Your task to perform on an android device: turn off priority inbox in the gmail app Image 0: 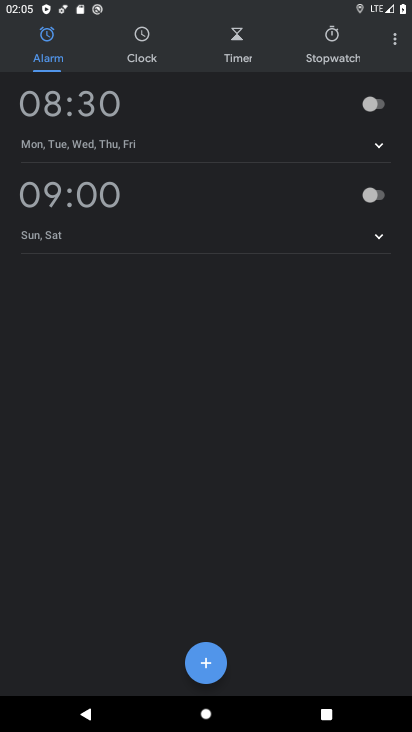
Step 0: press home button
Your task to perform on an android device: turn off priority inbox in the gmail app Image 1: 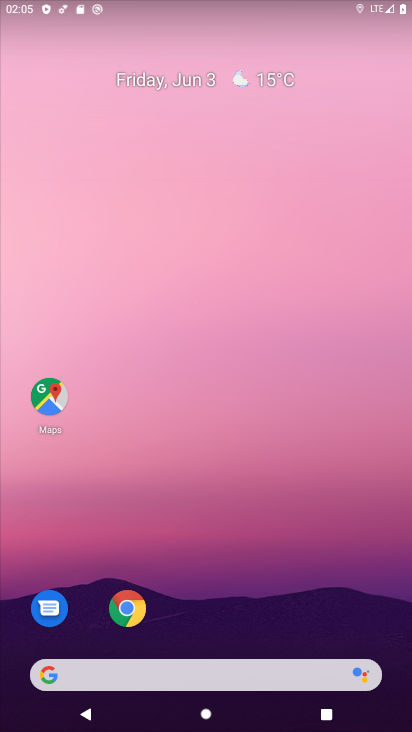
Step 1: drag from (301, 572) to (203, 51)
Your task to perform on an android device: turn off priority inbox in the gmail app Image 2: 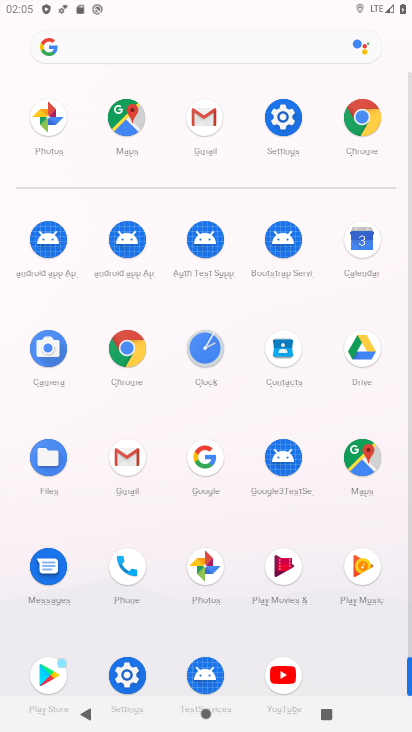
Step 2: click (204, 117)
Your task to perform on an android device: turn off priority inbox in the gmail app Image 3: 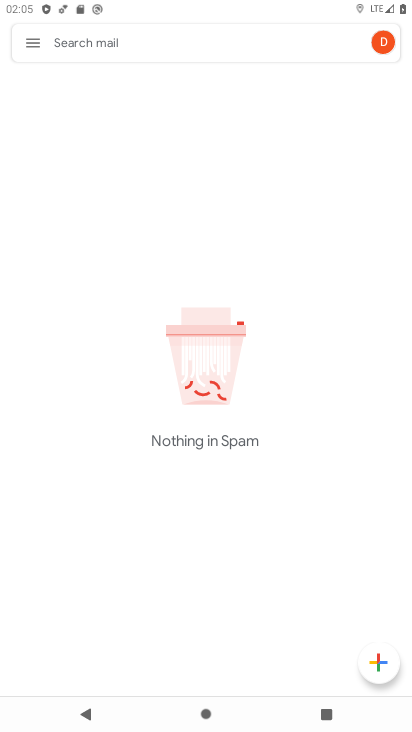
Step 3: click (28, 45)
Your task to perform on an android device: turn off priority inbox in the gmail app Image 4: 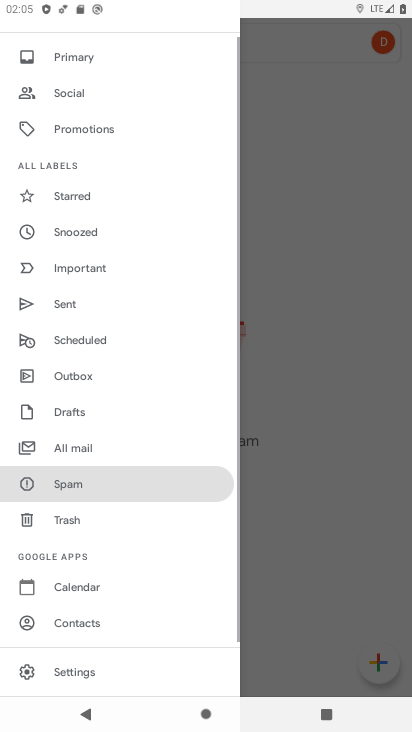
Step 4: drag from (93, 613) to (135, 206)
Your task to perform on an android device: turn off priority inbox in the gmail app Image 5: 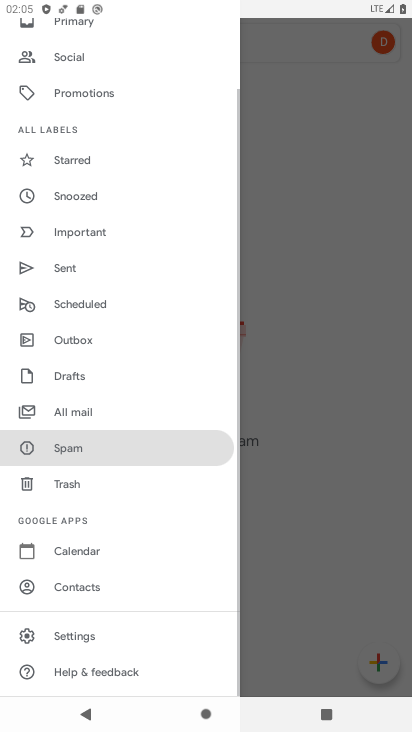
Step 5: click (86, 628)
Your task to perform on an android device: turn off priority inbox in the gmail app Image 6: 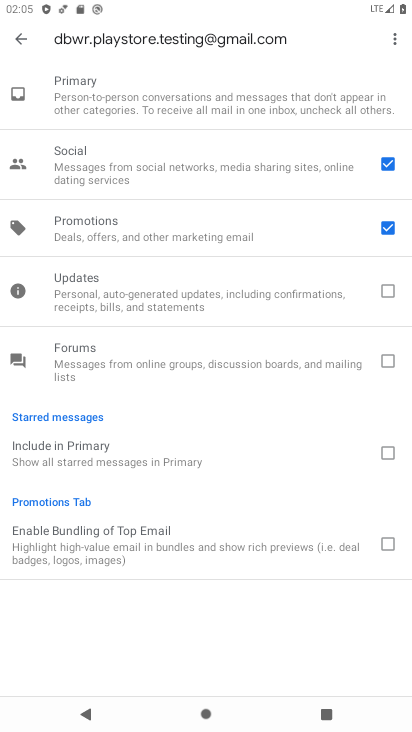
Step 6: click (19, 41)
Your task to perform on an android device: turn off priority inbox in the gmail app Image 7: 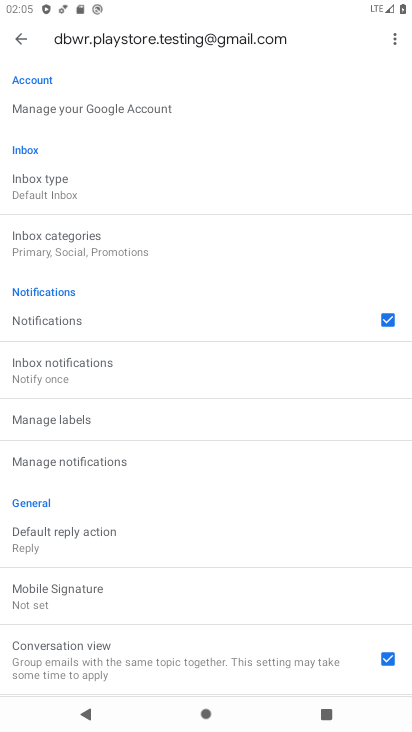
Step 7: click (67, 180)
Your task to perform on an android device: turn off priority inbox in the gmail app Image 8: 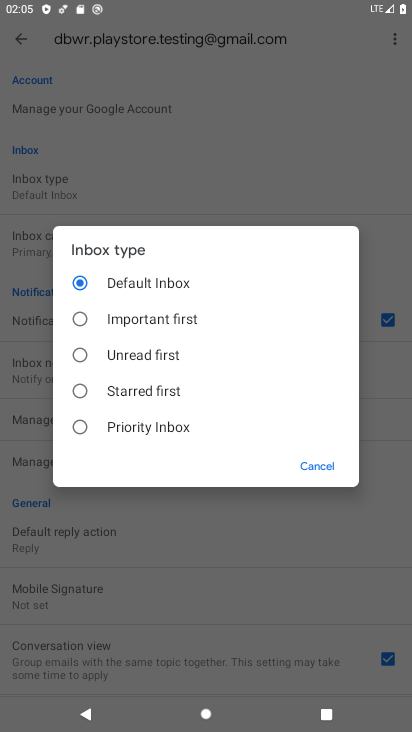
Step 8: task complete